Your task to perform on an android device: turn on wifi Image 0: 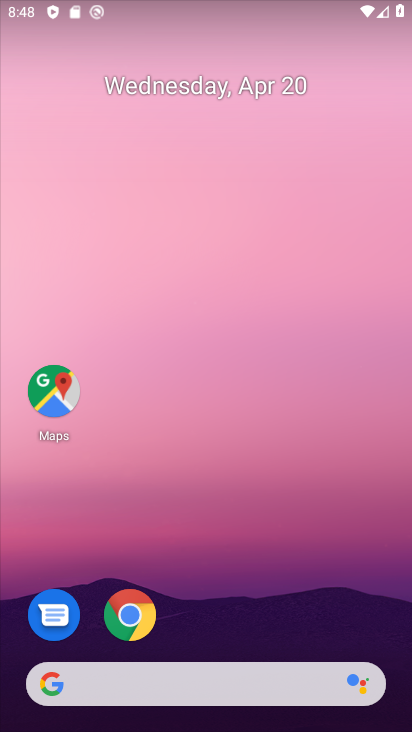
Step 0: drag from (200, 646) to (184, 46)
Your task to perform on an android device: turn on wifi Image 1: 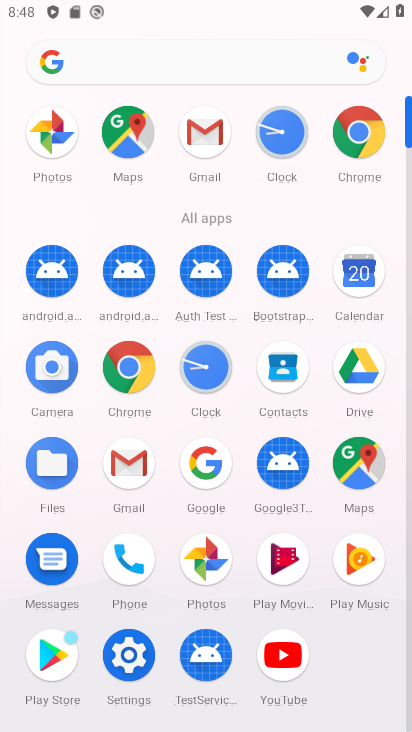
Step 1: click (127, 648)
Your task to perform on an android device: turn on wifi Image 2: 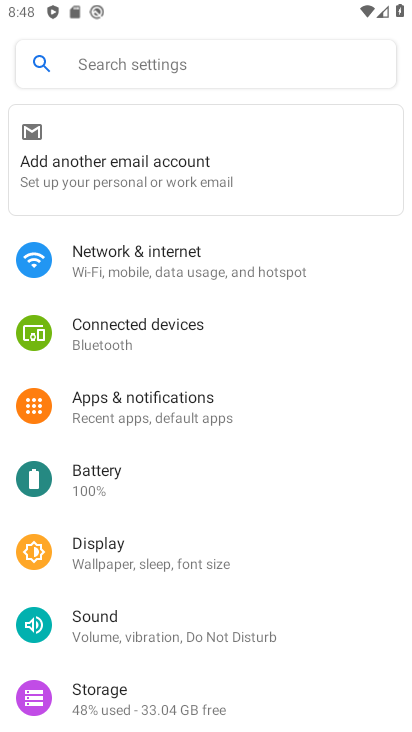
Step 2: click (156, 257)
Your task to perform on an android device: turn on wifi Image 3: 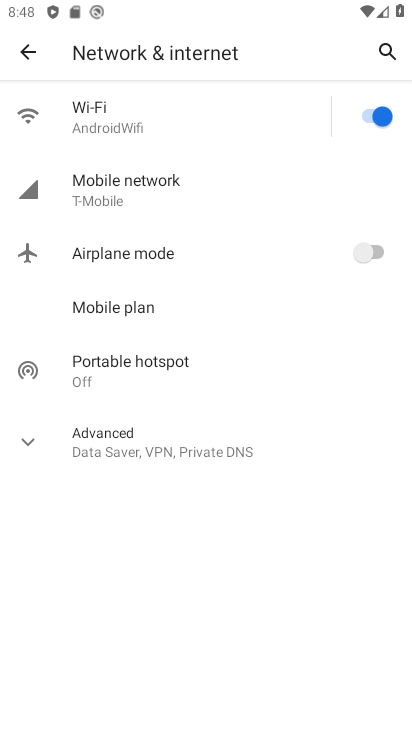
Step 3: click (150, 127)
Your task to perform on an android device: turn on wifi Image 4: 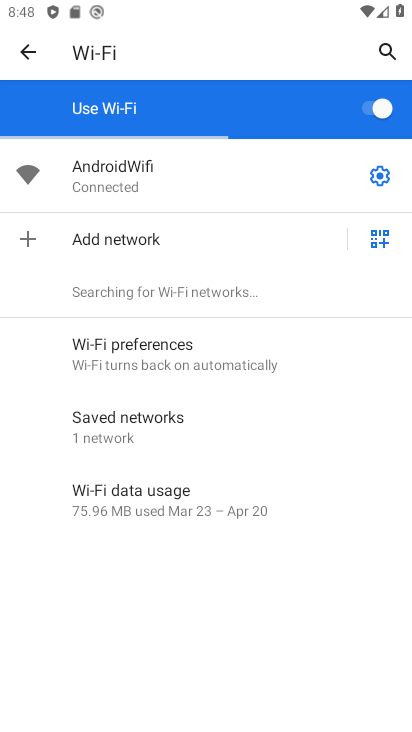
Step 4: task complete